Your task to perform on an android device: What's the weather? Image 0: 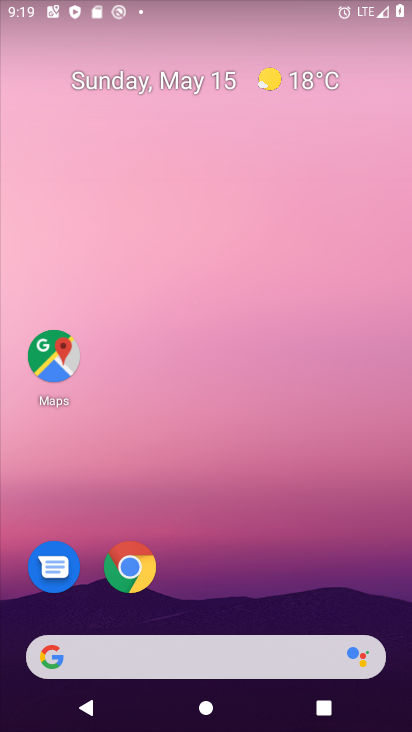
Step 0: click (129, 666)
Your task to perform on an android device: What's the weather? Image 1: 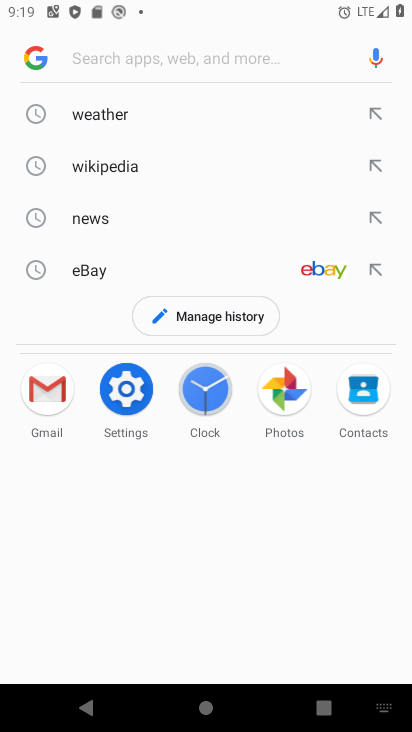
Step 1: type "What's the weather?"
Your task to perform on an android device: What's the weather? Image 2: 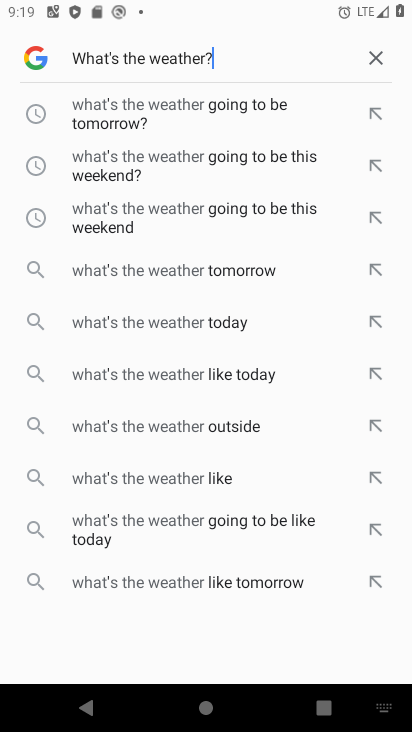
Step 2: click (320, 104)
Your task to perform on an android device: What's the weather? Image 3: 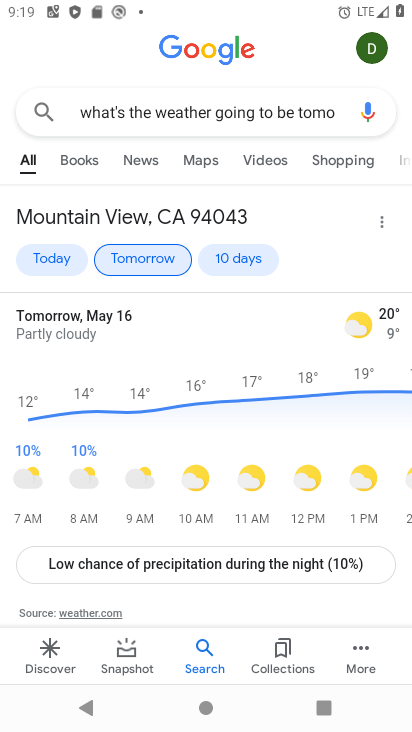
Step 3: click (51, 265)
Your task to perform on an android device: What's the weather? Image 4: 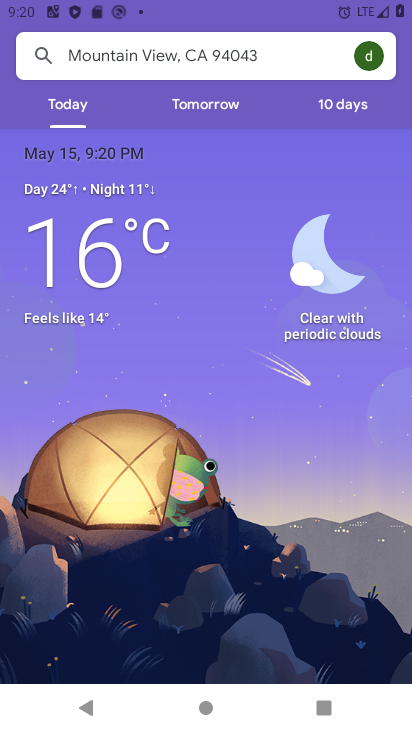
Step 4: task complete